Your task to perform on an android device: Open Youtube and go to "Your channel" Image 0: 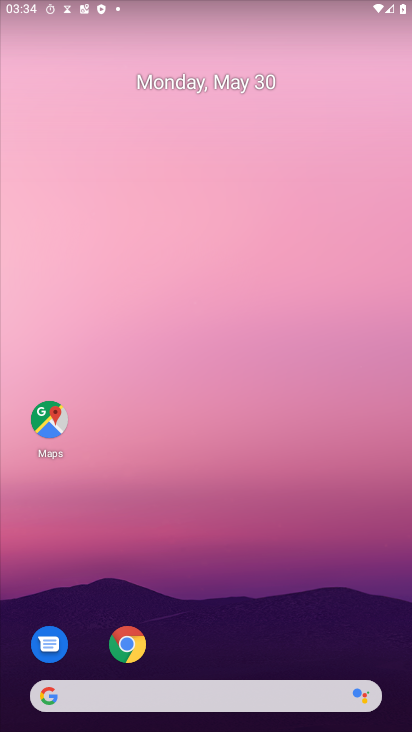
Step 0: press home button
Your task to perform on an android device: Open Youtube and go to "Your channel" Image 1: 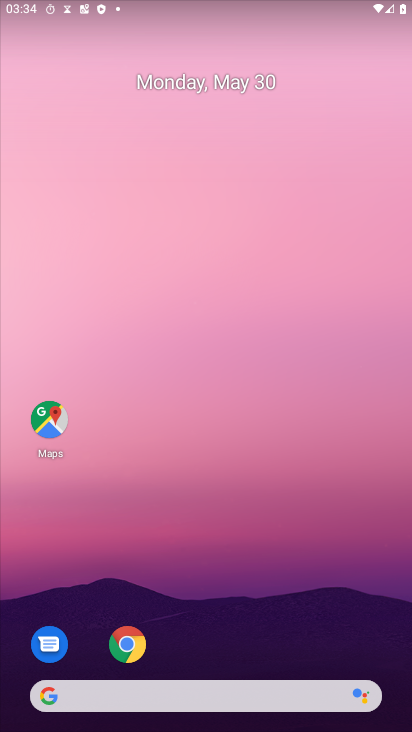
Step 1: drag from (264, 423) to (274, 98)
Your task to perform on an android device: Open Youtube and go to "Your channel" Image 2: 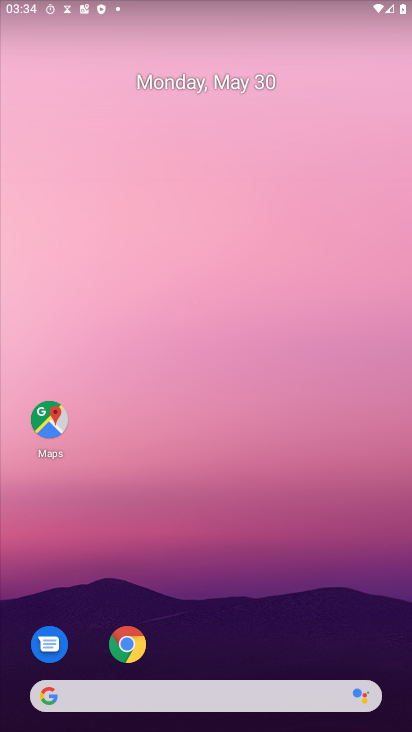
Step 2: drag from (205, 628) to (290, 87)
Your task to perform on an android device: Open Youtube and go to "Your channel" Image 3: 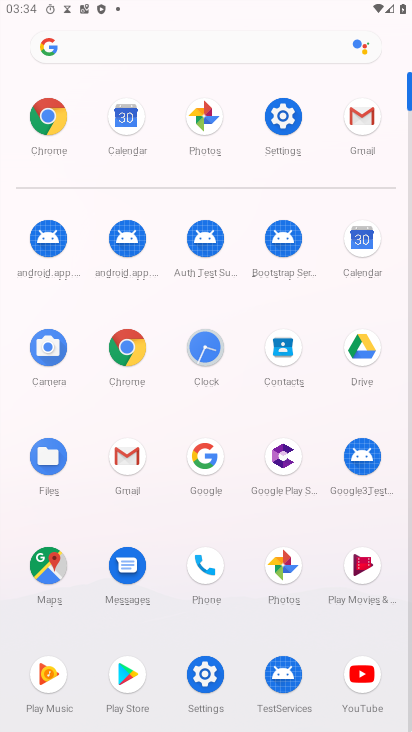
Step 3: click (357, 669)
Your task to perform on an android device: Open Youtube and go to "Your channel" Image 4: 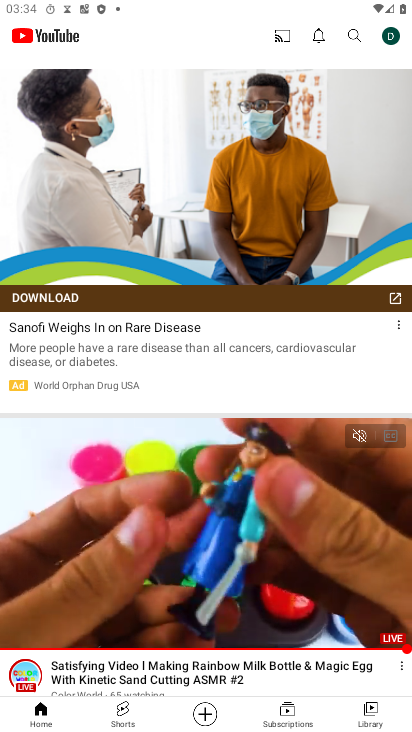
Step 4: click (387, 38)
Your task to perform on an android device: Open Youtube and go to "Your channel" Image 5: 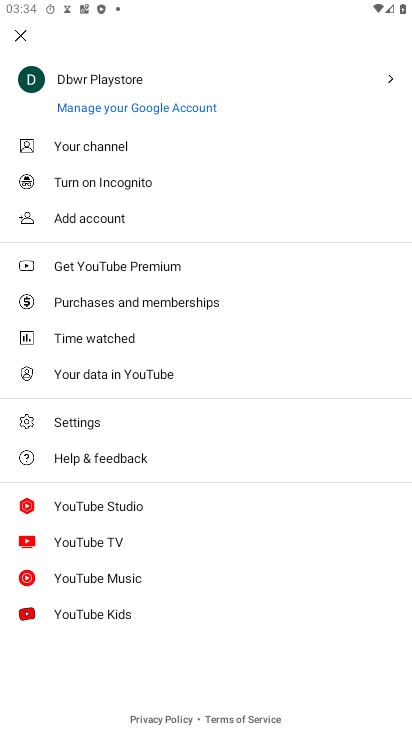
Step 5: click (83, 148)
Your task to perform on an android device: Open Youtube and go to "Your channel" Image 6: 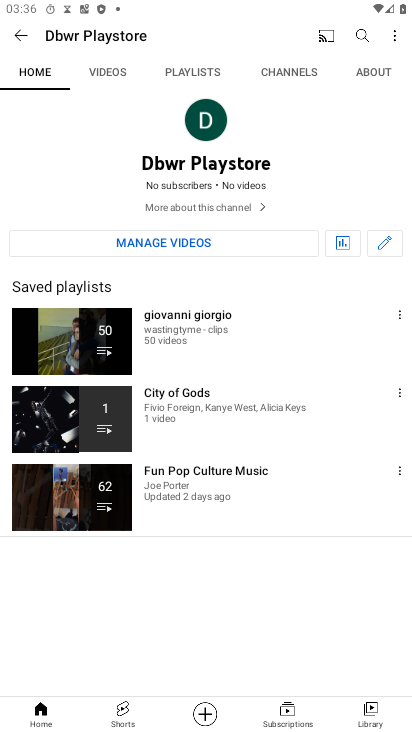
Step 6: task complete